Your task to perform on an android device: Go to eBay Image 0: 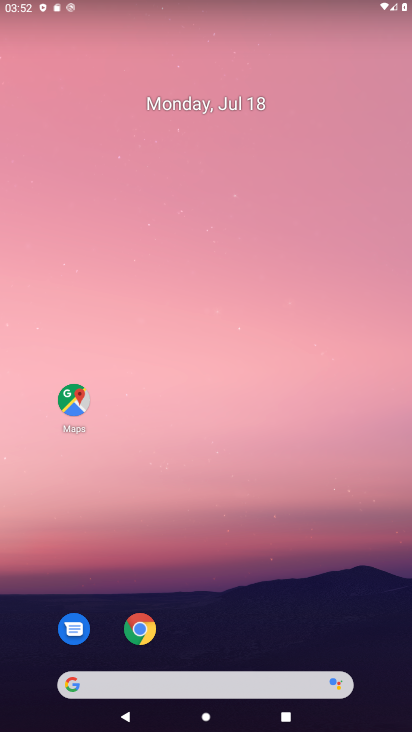
Step 0: click (135, 619)
Your task to perform on an android device: Go to eBay Image 1: 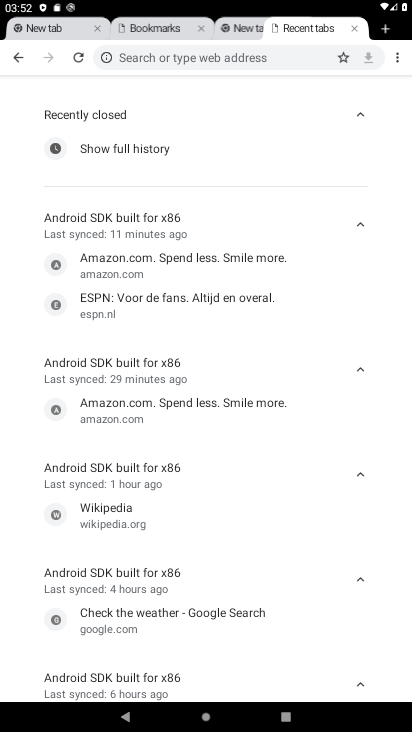
Step 1: click (210, 56)
Your task to perform on an android device: Go to eBay Image 2: 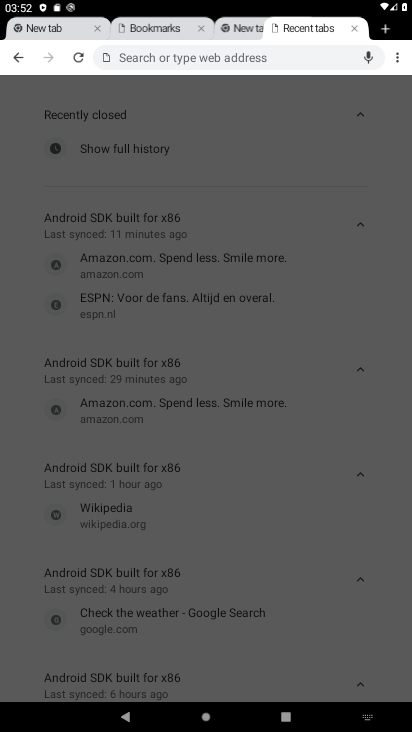
Step 2: type "eBay"
Your task to perform on an android device: Go to eBay Image 3: 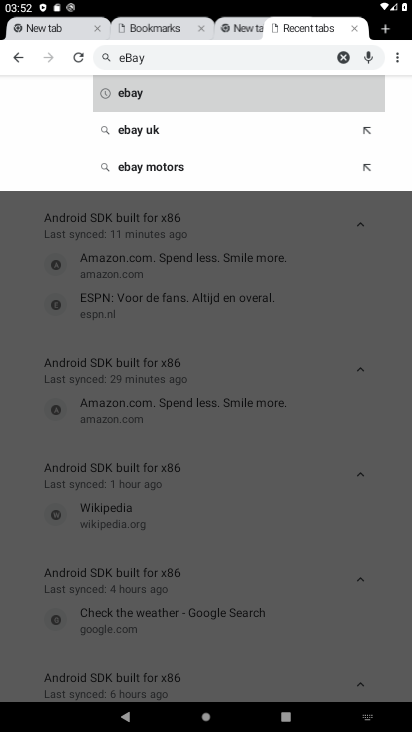
Step 3: click (194, 86)
Your task to perform on an android device: Go to eBay Image 4: 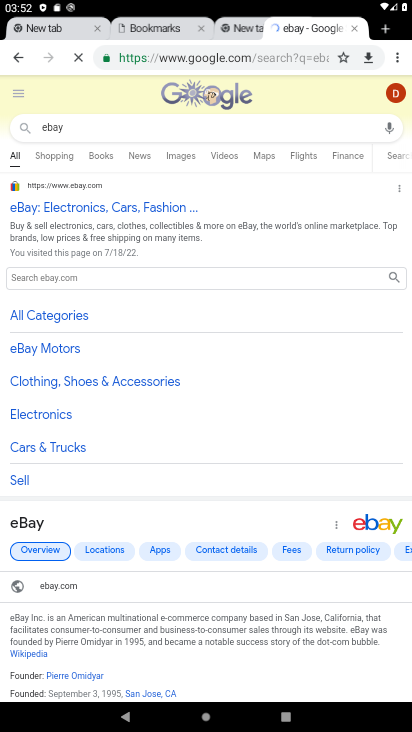
Step 4: task complete